Your task to perform on an android device: delete browsing data in the chrome app Image 0: 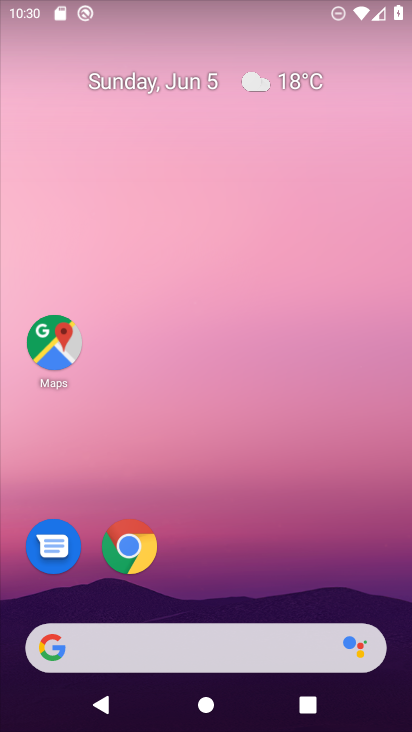
Step 0: click (330, 63)
Your task to perform on an android device: delete browsing data in the chrome app Image 1: 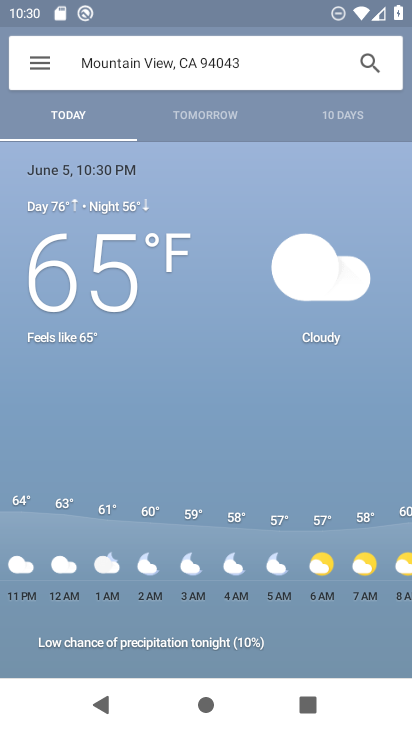
Step 1: press home button
Your task to perform on an android device: delete browsing data in the chrome app Image 2: 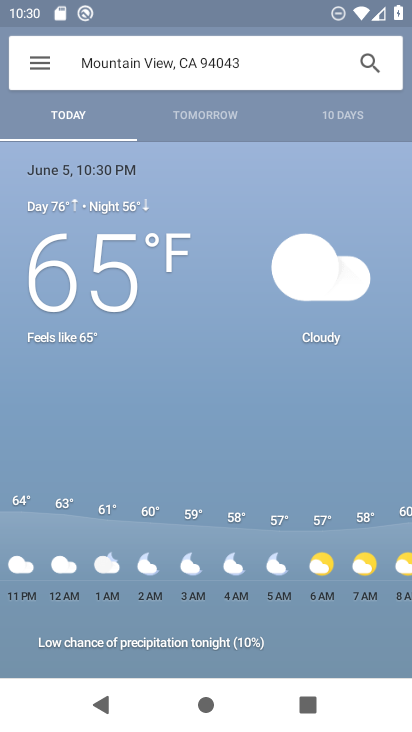
Step 2: drag from (208, 617) to (211, 22)
Your task to perform on an android device: delete browsing data in the chrome app Image 3: 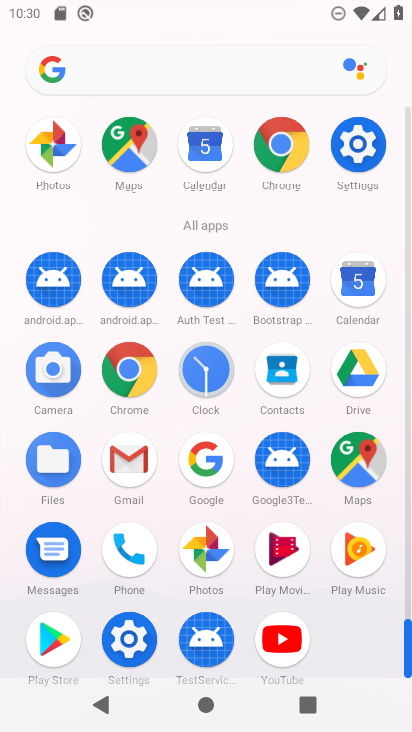
Step 3: click (133, 367)
Your task to perform on an android device: delete browsing data in the chrome app Image 4: 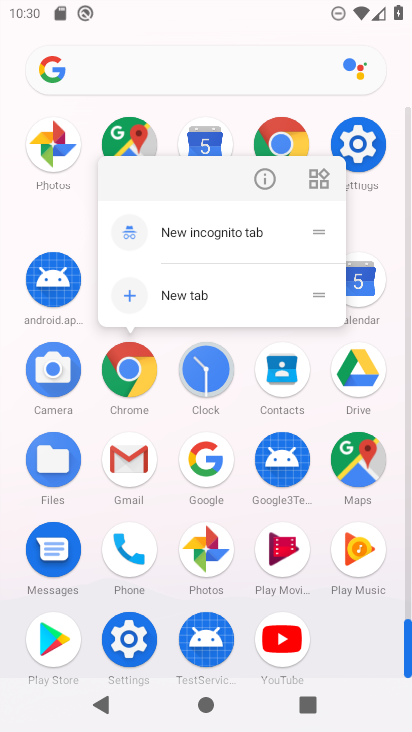
Step 4: click (126, 371)
Your task to perform on an android device: delete browsing data in the chrome app Image 5: 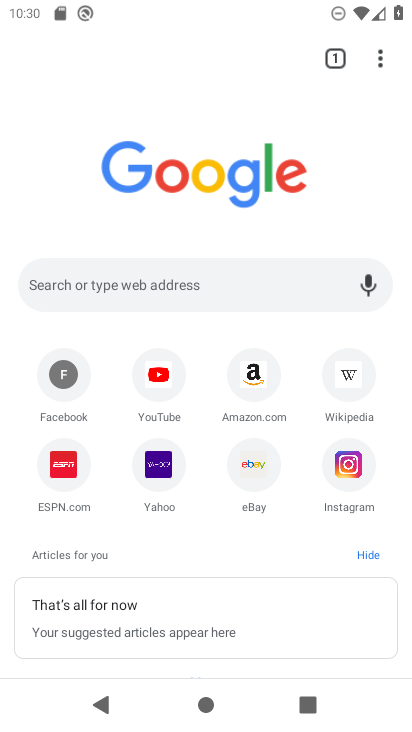
Step 5: click (380, 55)
Your task to perform on an android device: delete browsing data in the chrome app Image 6: 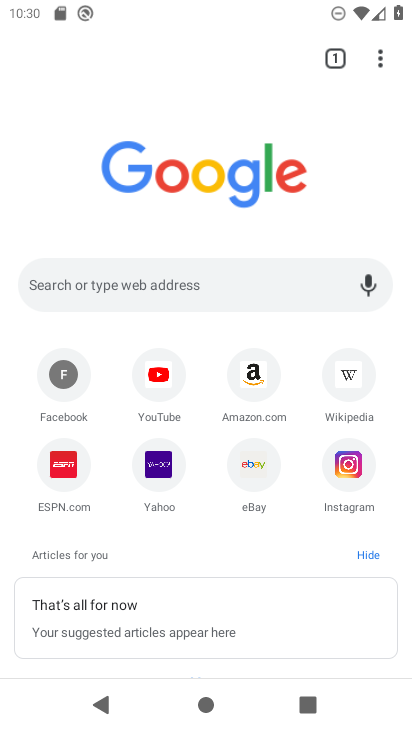
Step 6: drag from (383, 51) to (224, 326)
Your task to perform on an android device: delete browsing data in the chrome app Image 7: 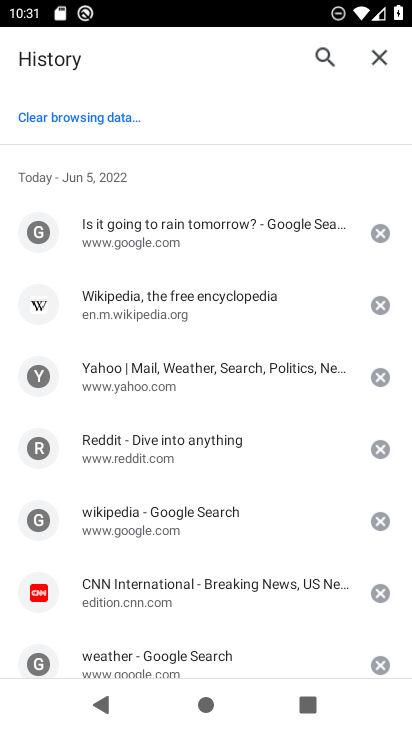
Step 7: click (67, 118)
Your task to perform on an android device: delete browsing data in the chrome app Image 8: 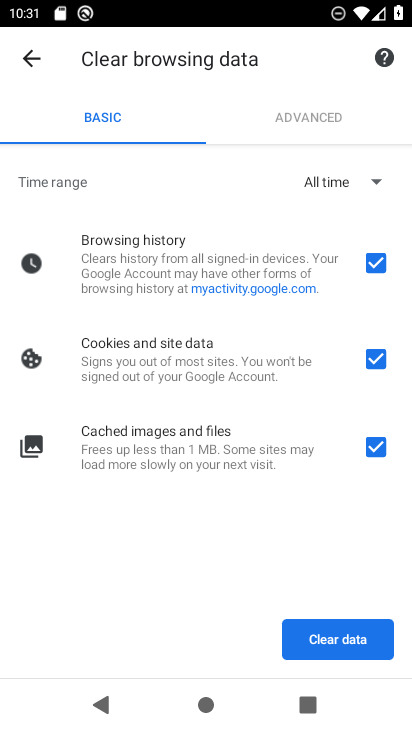
Step 8: click (352, 638)
Your task to perform on an android device: delete browsing data in the chrome app Image 9: 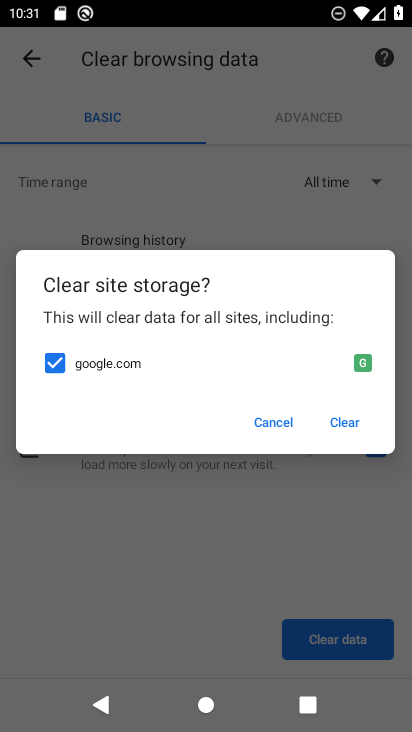
Step 9: click (323, 421)
Your task to perform on an android device: delete browsing data in the chrome app Image 10: 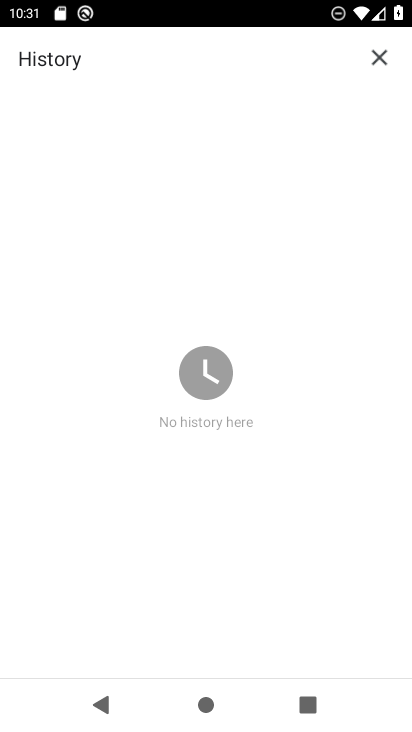
Step 10: task complete